Your task to perform on an android device: uninstall "Paramount+ | Peak Streaming" Image 0: 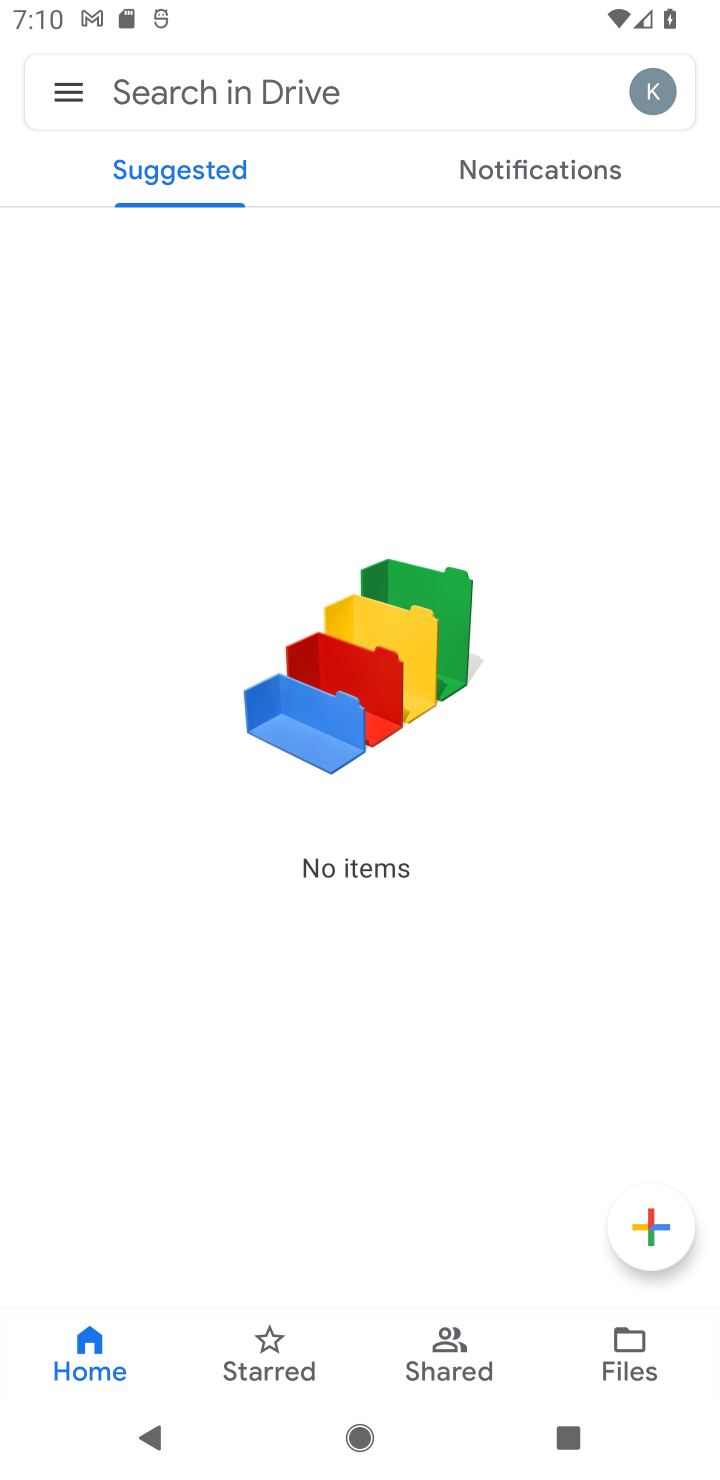
Step 0: press home button
Your task to perform on an android device: uninstall "Paramount+ | Peak Streaming" Image 1: 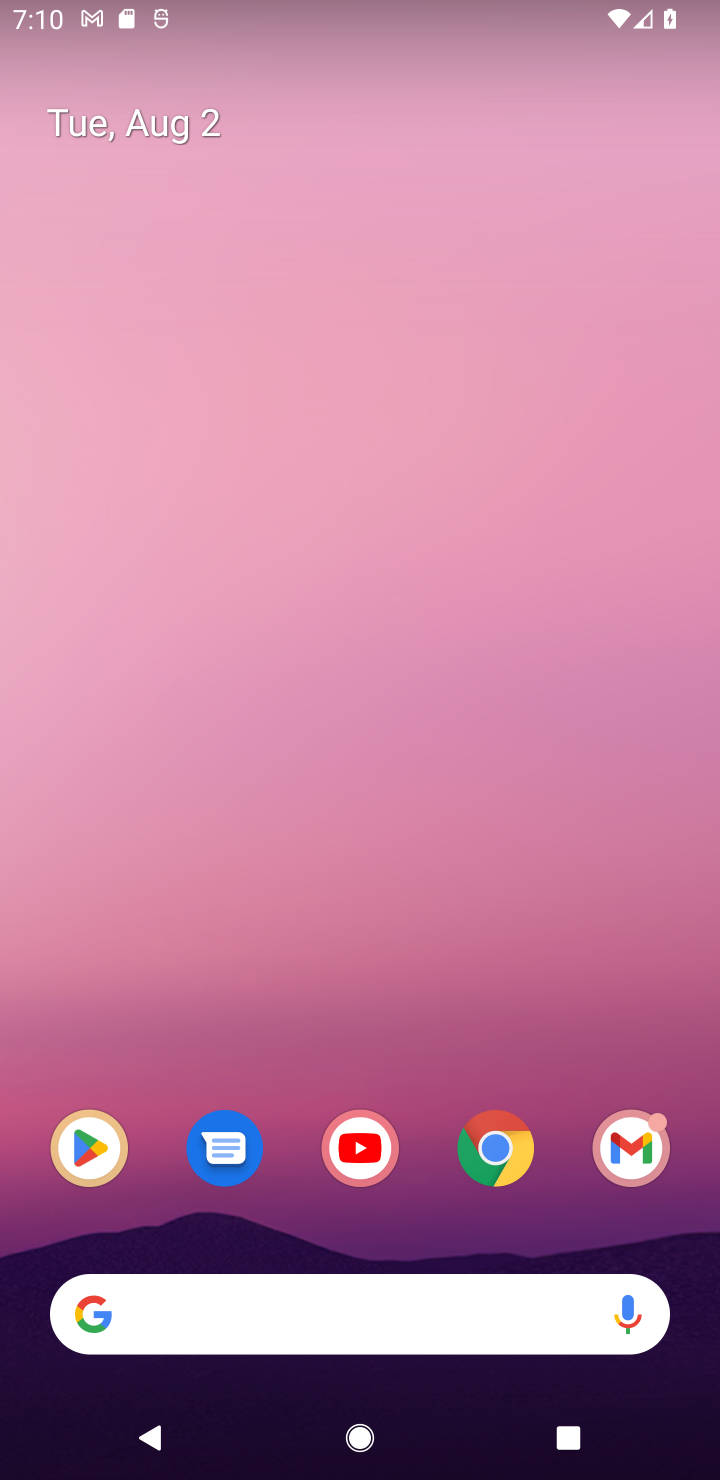
Step 1: drag from (692, 1219) to (425, 80)
Your task to perform on an android device: uninstall "Paramount+ | Peak Streaming" Image 2: 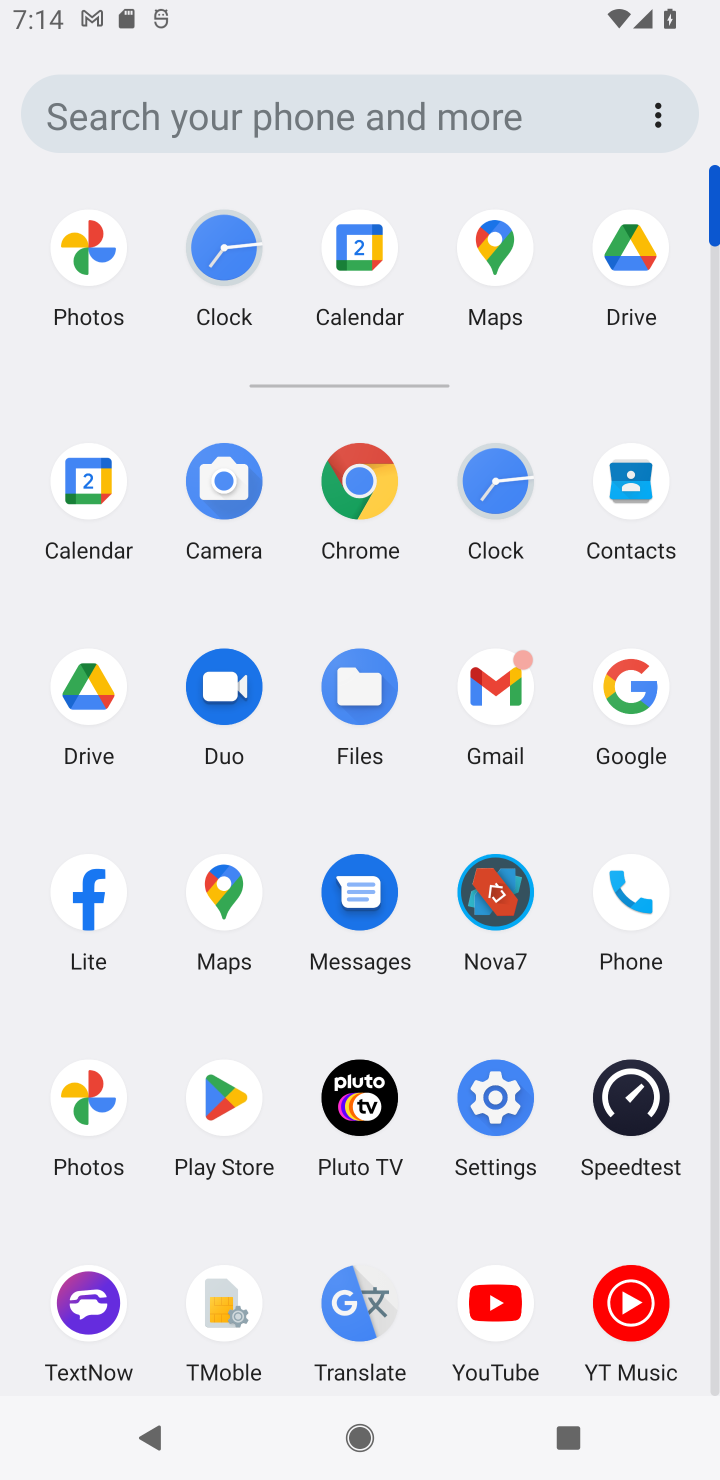
Step 2: click (209, 1113)
Your task to perform on an android device: uninstall "Paramount+ | Peak Streaming" Image 3: 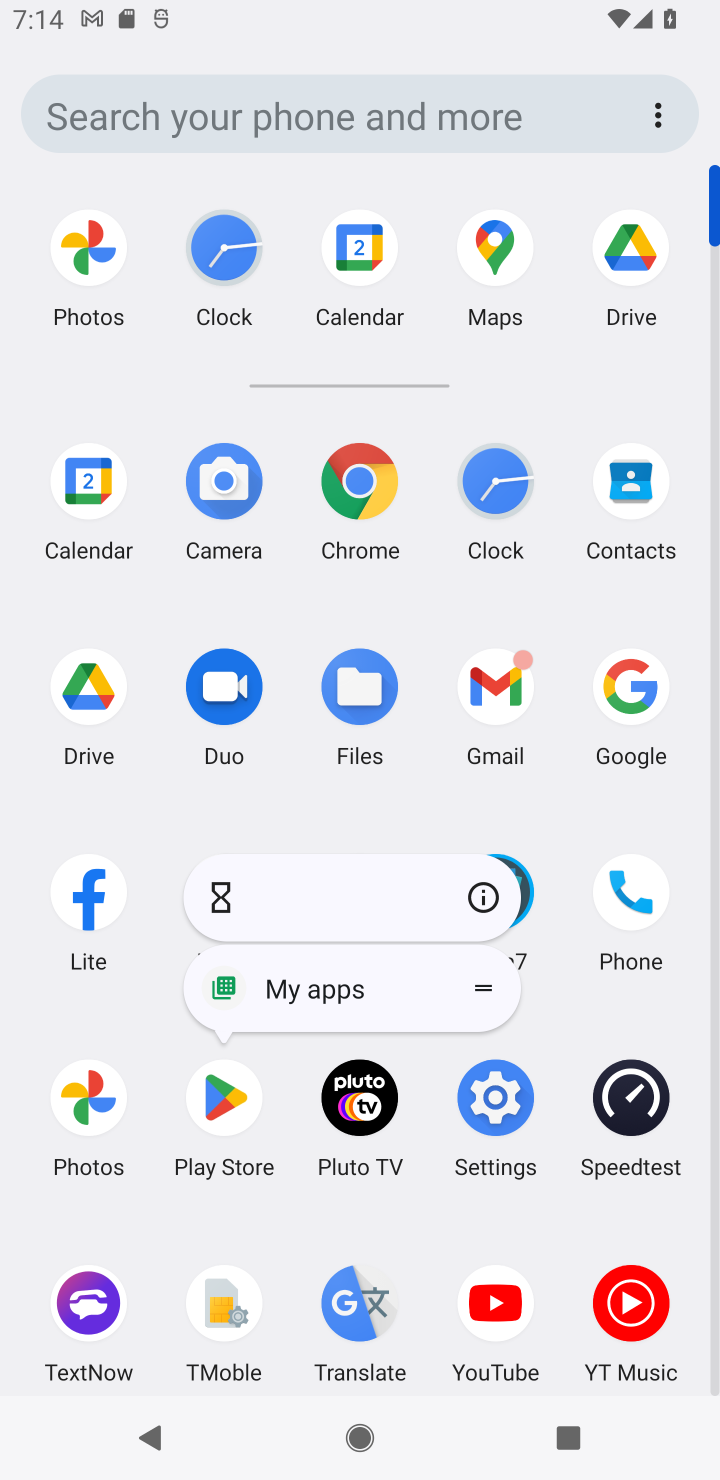
Step 3: click (232, 1107)
Your task to perform on an android device: uninstall "Paramount+ | Peak Streaming" Image 4: 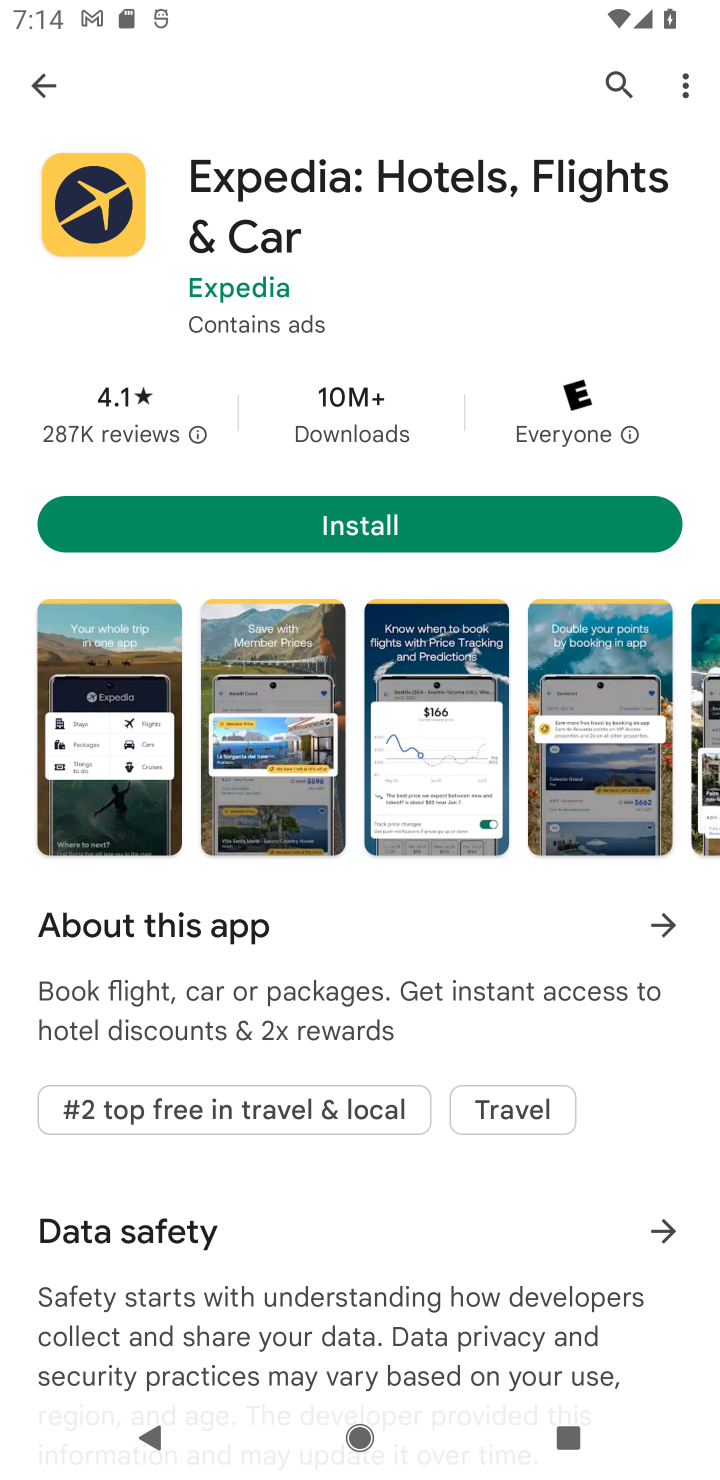
Step 4: press back button
Your task to perform on an android device: uninstall "Paramount+ | Peak Streaming" Image 5: 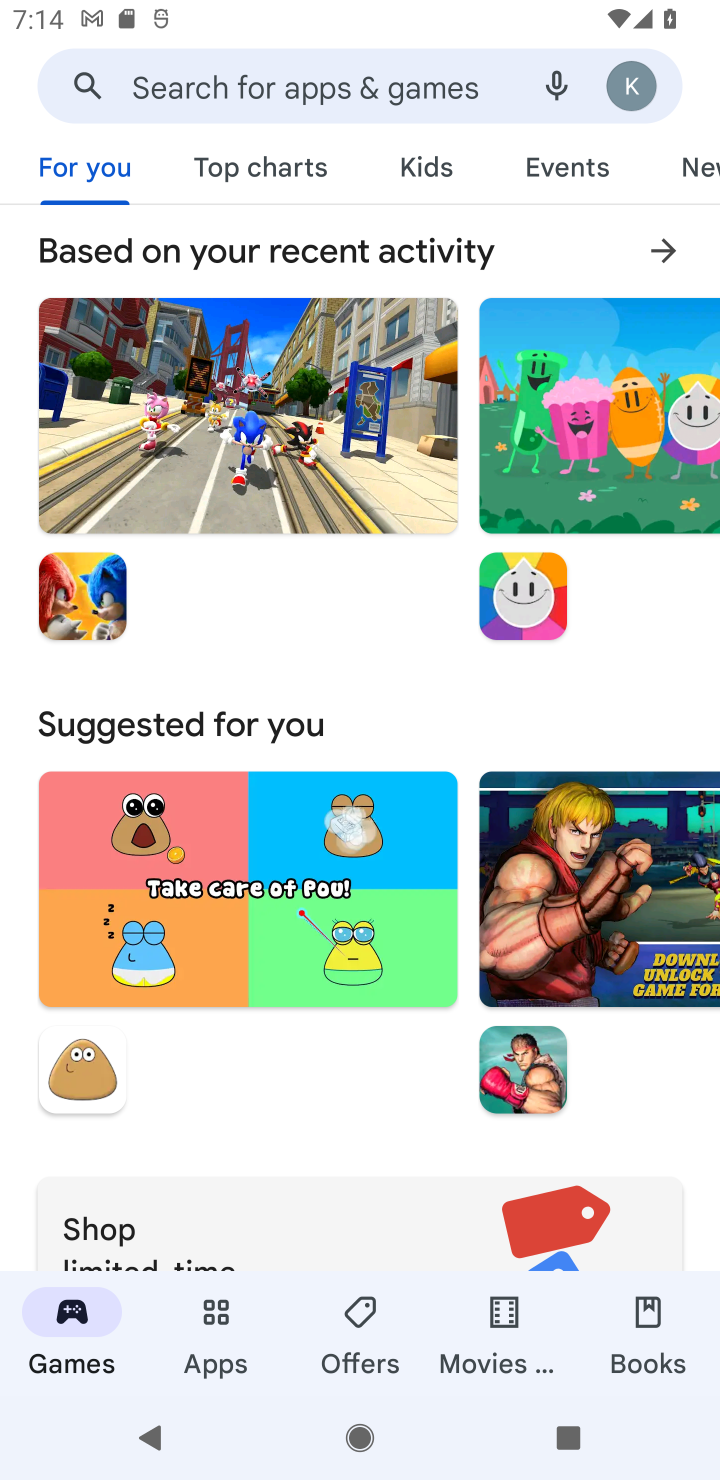
Step 5: click (212, 89)
Your task to perform on an android device: uninstall "Paramount+ | Peak Streaming" Image 6: 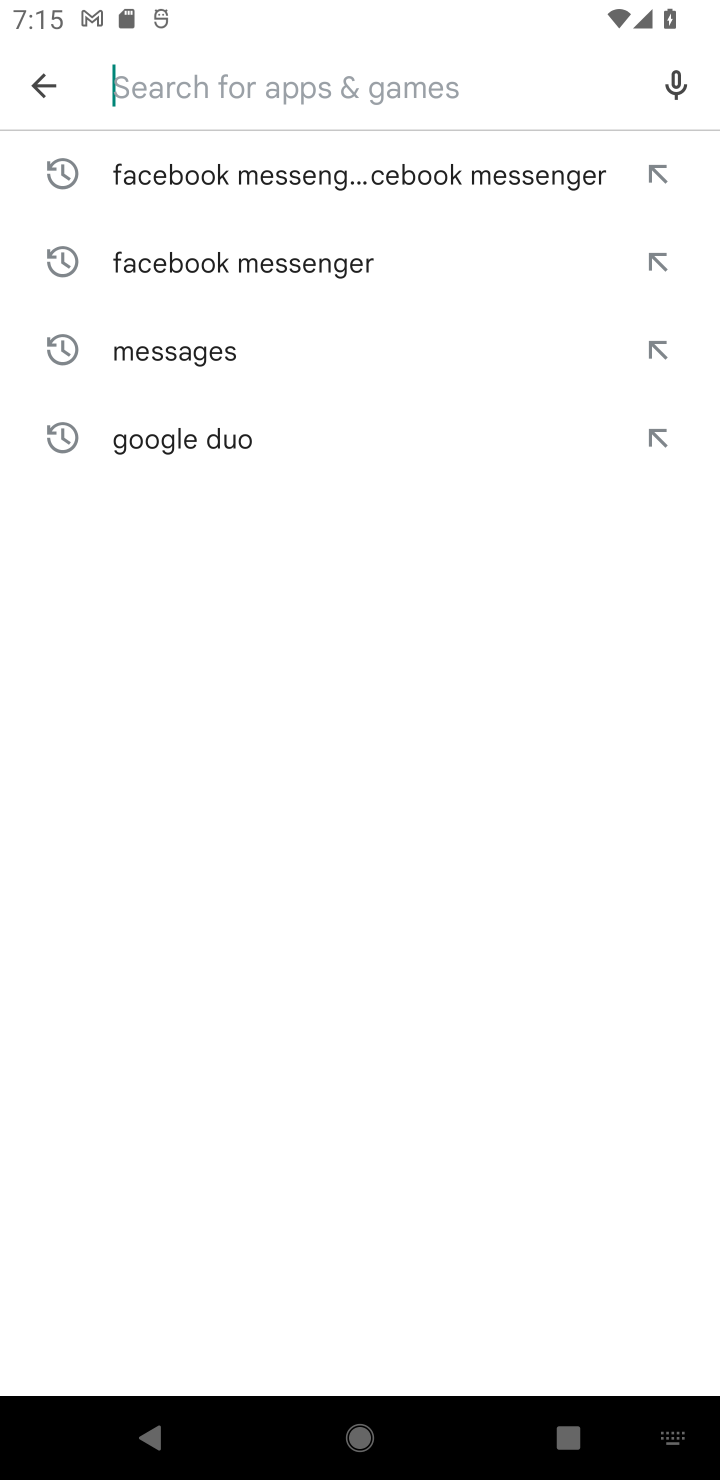
Step 6: type "Paramount+ | Peak Streaming"
Your task to perform on an android device: uninstall "Paramount+ | Peak Streaming" Image 7: 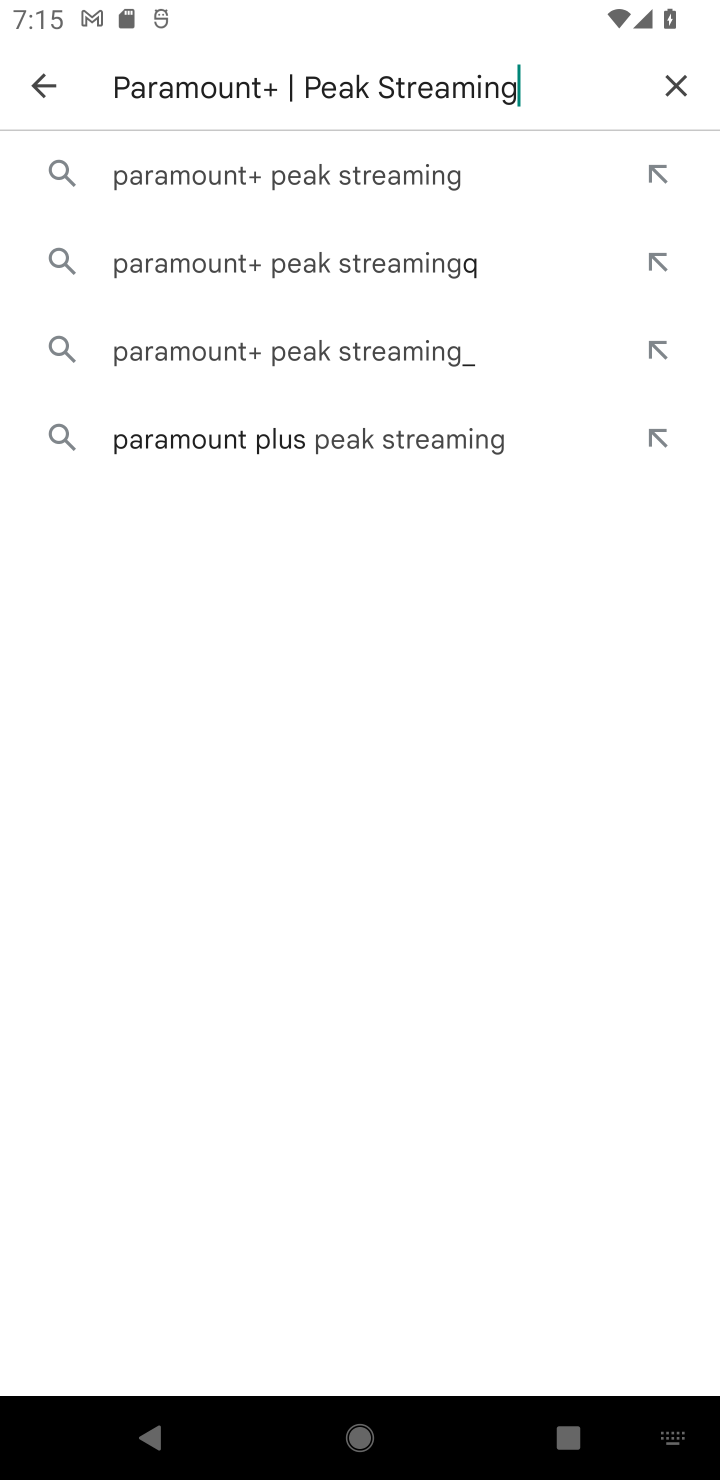
Step 7: click (277, 185)
Your task to perform on an android device: uninstall "Paramount+ | Peak Streaming" Image 8: 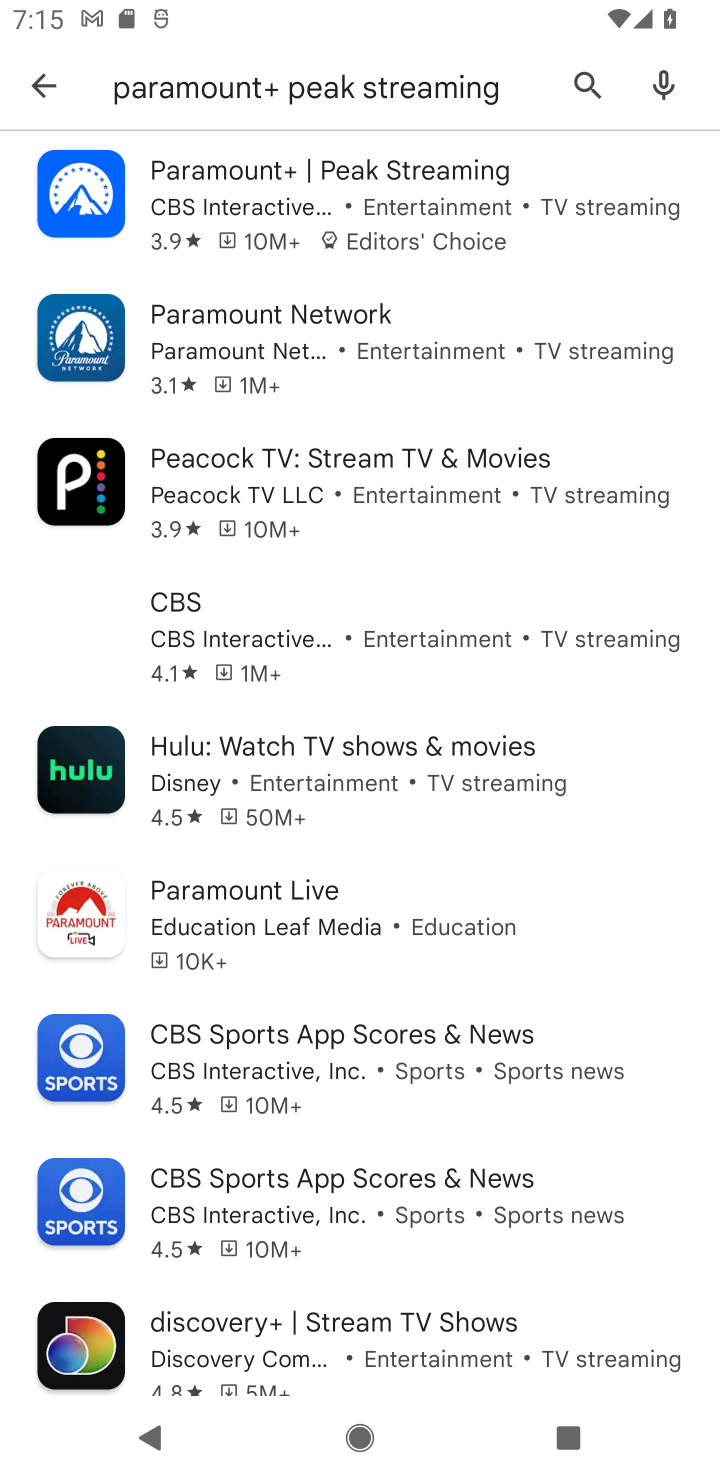
Step 8: click (333, 222)
Your task to perform on an android device: uninstall "Paramount+ | Peak Streaming" Image 9: 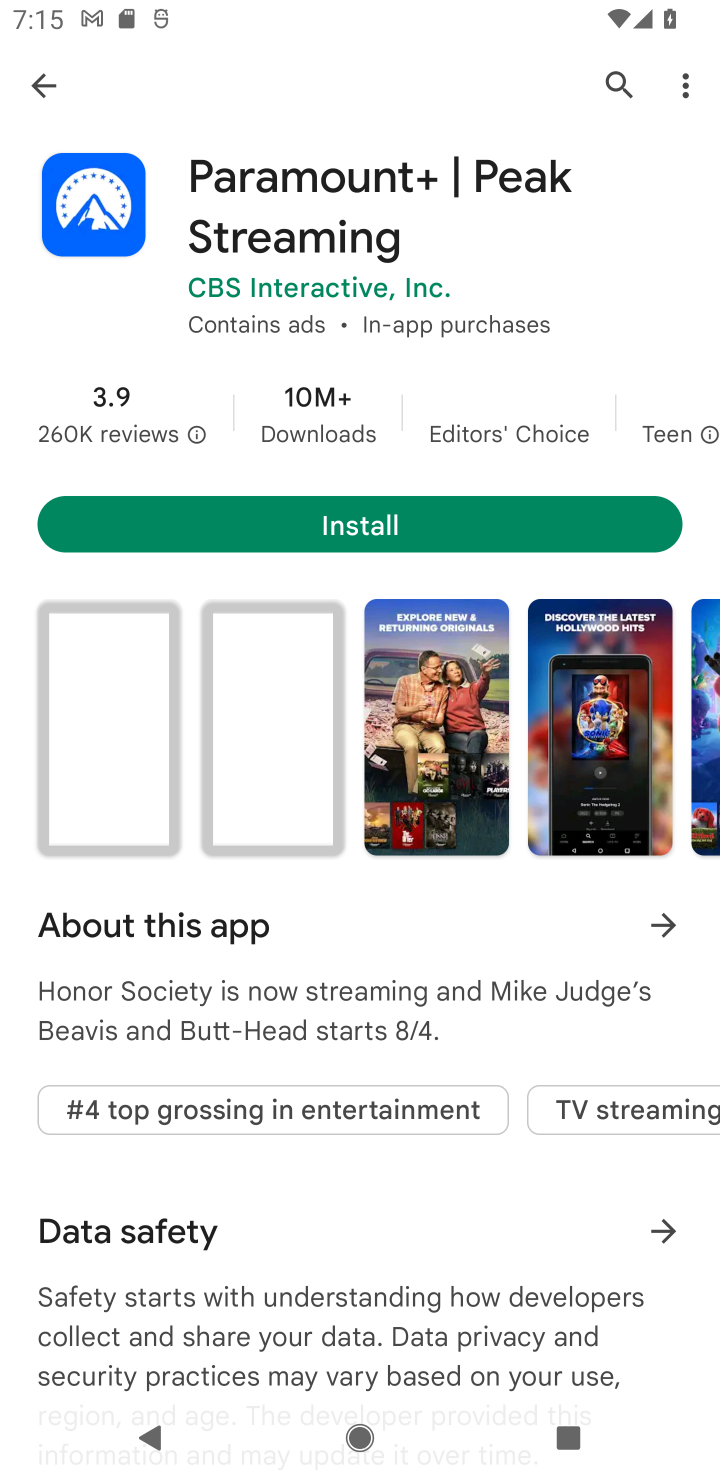
Step 9: task complete